Your task to perform on an android device: turn off sleep mode Image 0: 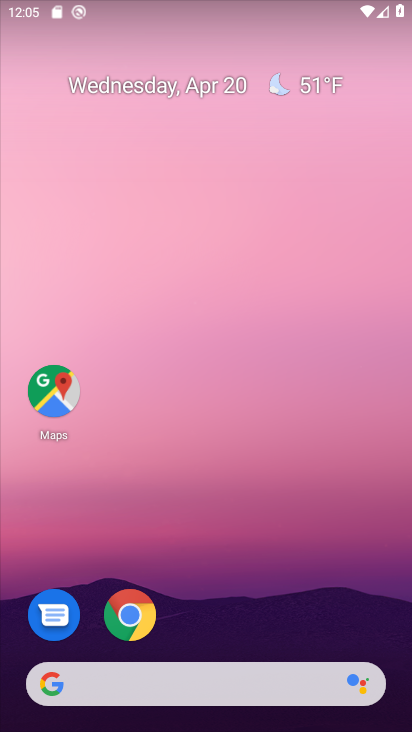
Step 0: drag from (203, 692) to (220, 51)
Your task to perform on an android device: turn off sleep mode Image 1: 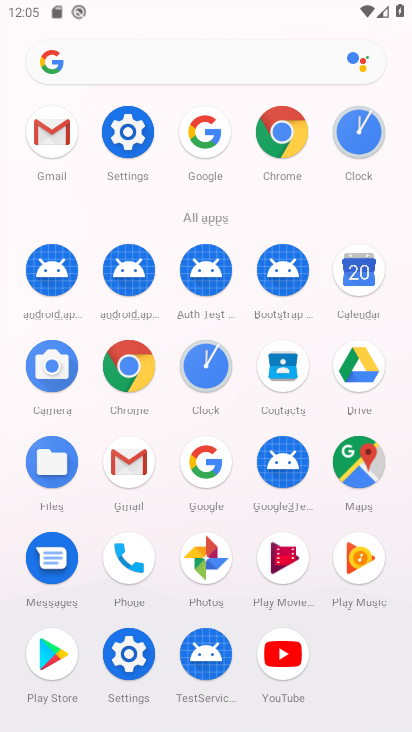
Step 1: click (124, 135)
Your task to perform on an android device: turn off sleep mode Image 2: 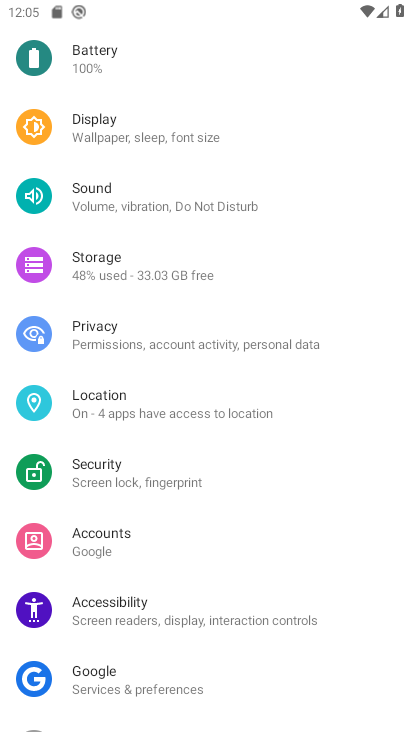
Step 2: click (83, 129)
Your task to perform on an android device: turn off sleep mode Image 3: 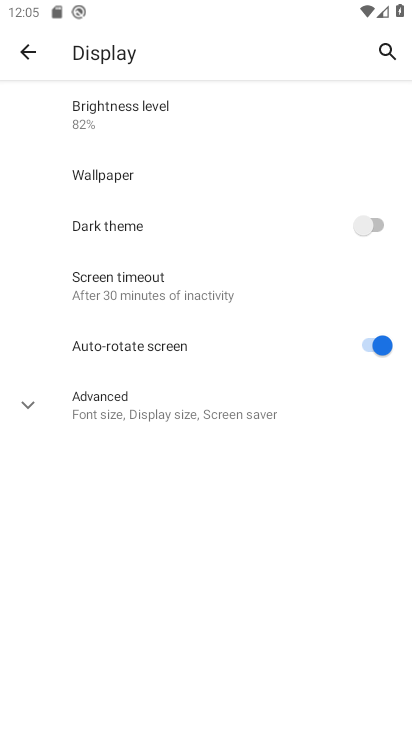
Step 3: click (131, 406)
Your task to perform on an android device: turn off sleep mode Image 4: 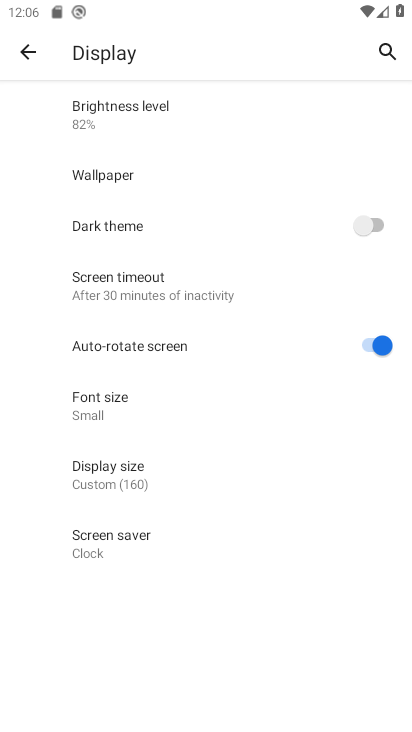
Step 4: task complete